Your task to perform on an android device: turn off notifications settings in the gmail app Image 0: 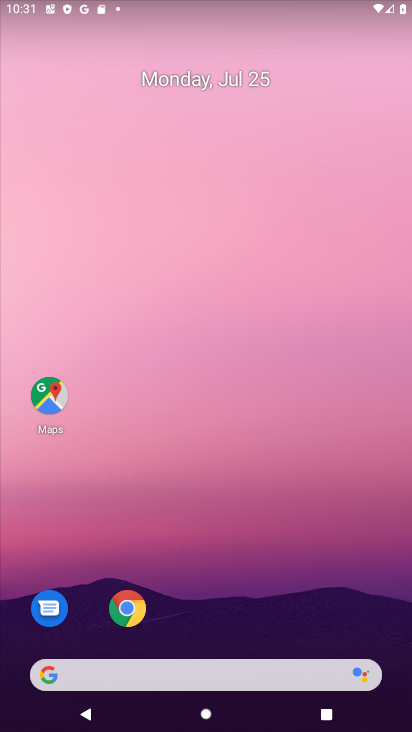
Step 0: drag from (228, 646) to (311, 150)
Your task to perform on an android device: turn off notifications settings in the gmail app Image 1: 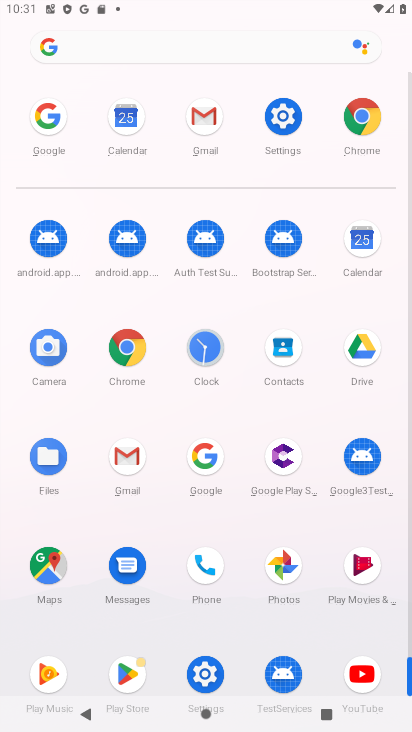
Step 1: click (135, 470)
Your task to perform on an android device: turn off notifications settings in the gmail app Image 2: 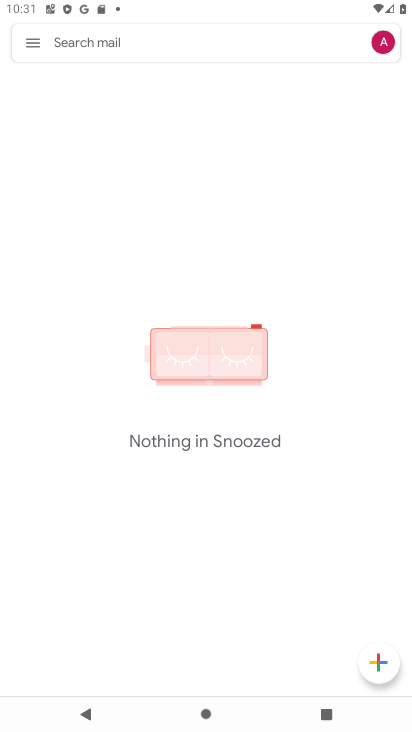
Step 2: click (40, 43)
Your task to perform on an android device: turn off notifications settings in the gmail app Image 3: 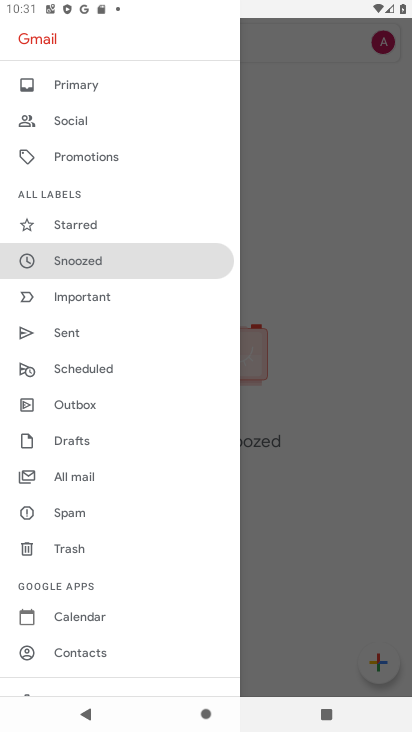
Step 3: drag from (92, 507) to (188, 116)
Your task to perform on an android device: turn off notifications settings in the gmail app Image 4: 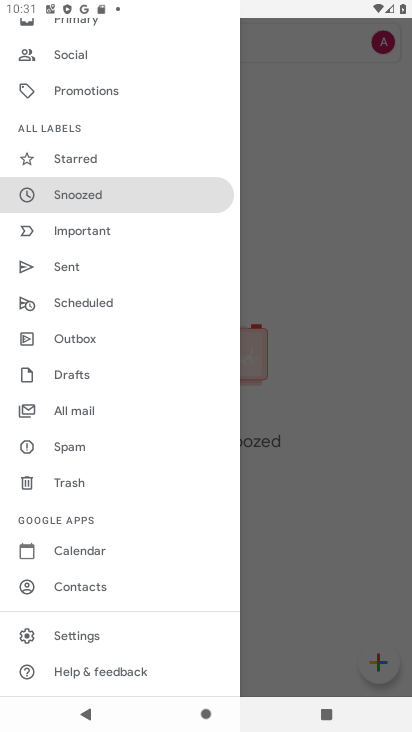
Step 4: click (71, 636)
Your task to perform on an android device: turn off notifications settings in the gmail app Image 5: 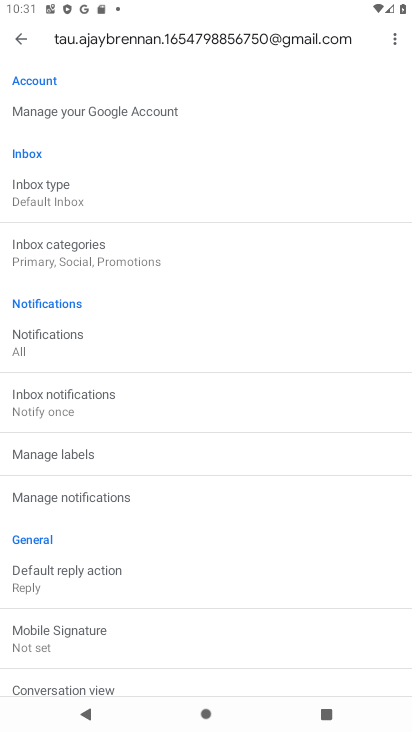
Step 5: click (21, 39)
Your task to perform on an android device: turn off notifications settings in the gmail app Image 6: 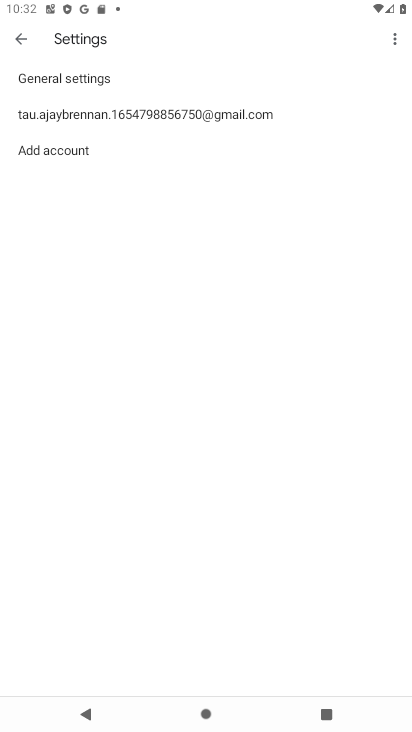
Step 6: click (64, 70)
Your task to perform on an android device: turn off notifications settings in the gmail app Image 7: 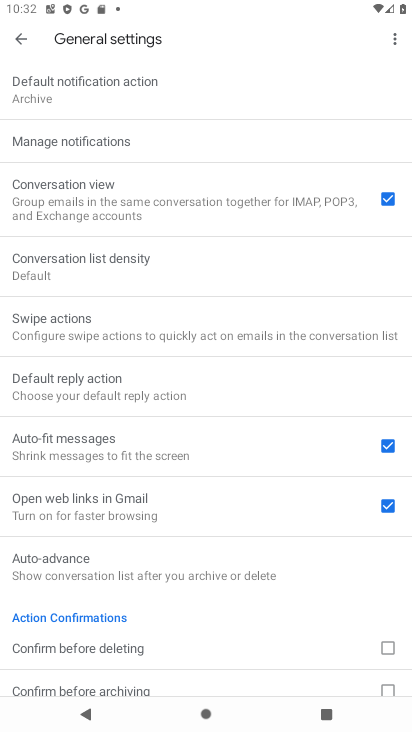
Step 7: click (62, 139)
Your task to perform on an android device: turn off notifications settings in the gmail app Image 8: 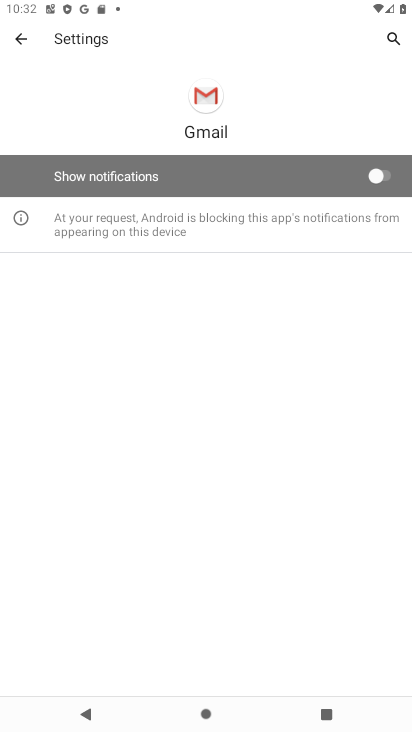
Step 8: task complete